Your task to perform on an android device: Open maps Image 0: 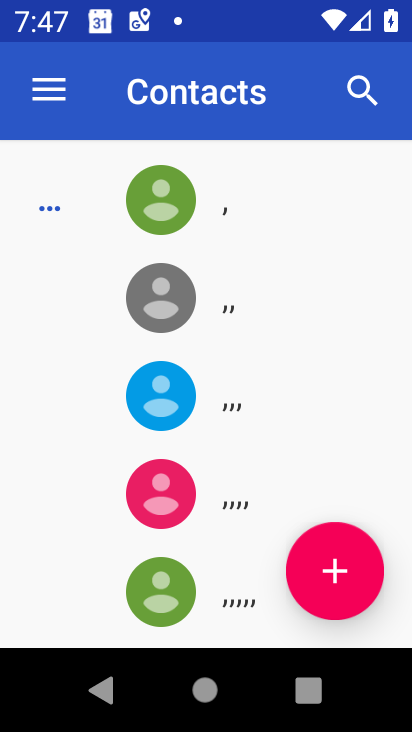
Step 0: press home button
Your task to perform on an android device: Open maps Image 1: 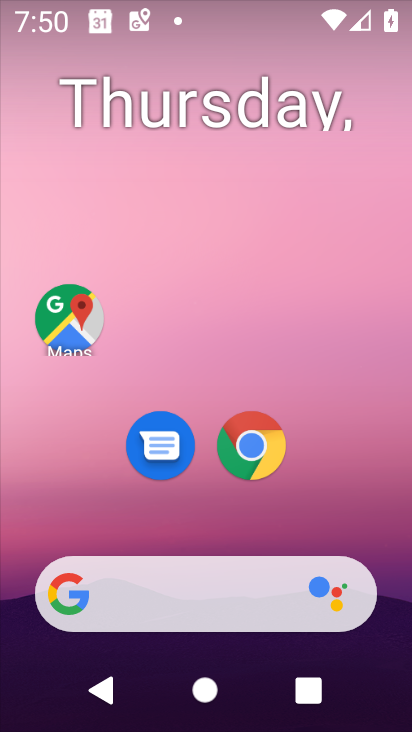
Step 1: drag from (391, 625) to (292, 44)
Your task to perform on an android device: Open maps Image 2: 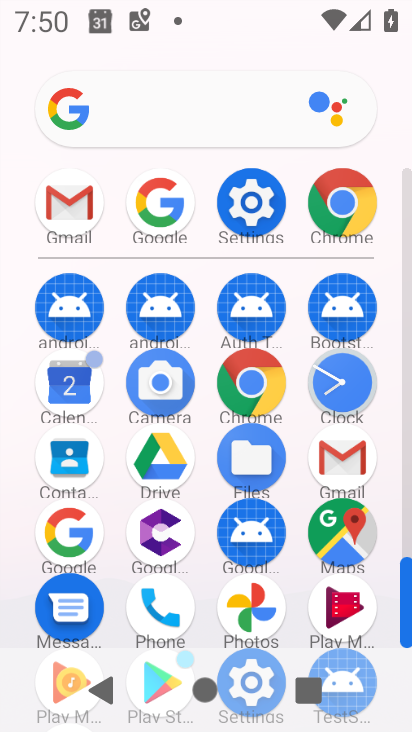
Step 2: click (337, 530)
Your task to perform on an android device: Open maps Image 3: 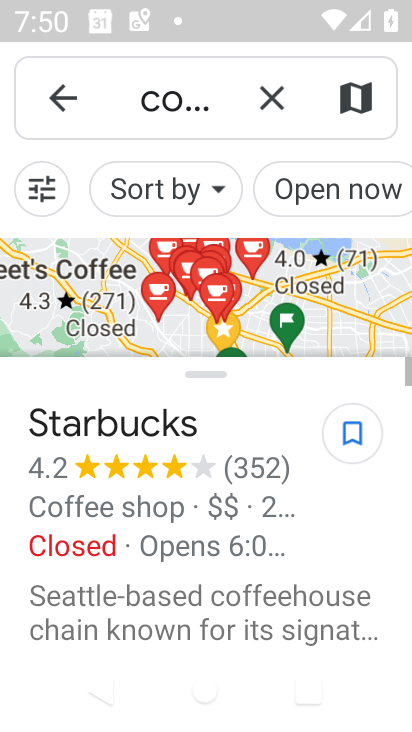
Step 3: click (280, 88)
Your task to perform on an android device: Open maps Image 4: 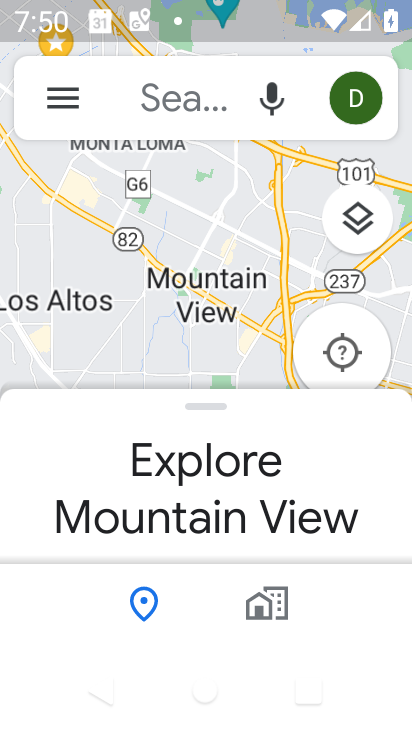
Step 4: task complete